Your task to perform on an android device: Search for "beats solo 3" on newegg.com, select the first entry, add it to the cart, then select checkout. Image 0: 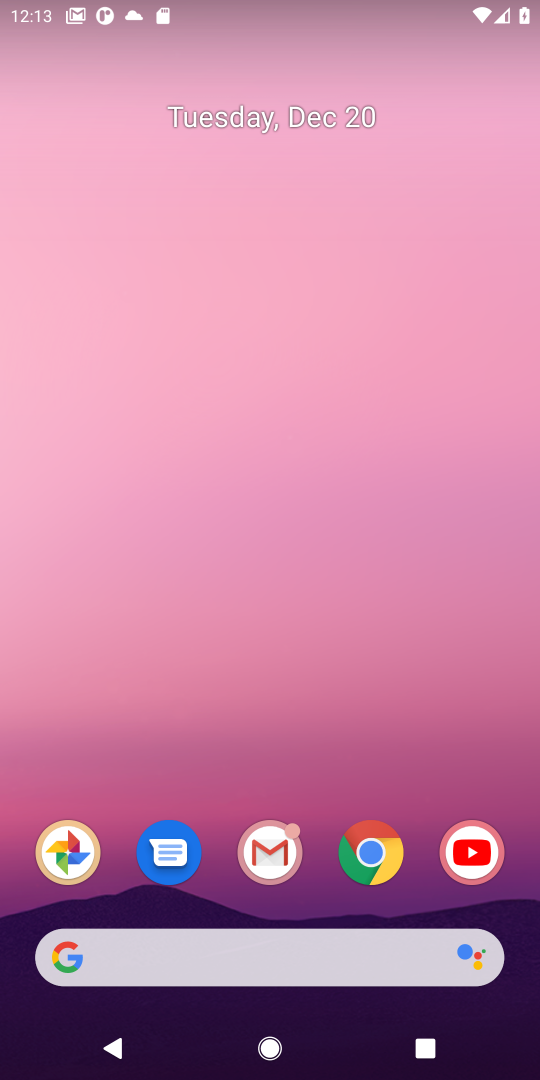
Step 0: click (374, 847)
Your task to perform on an android device: Search for "beats solo 3" on newegg.com, select the first entry, add it to the cart, then select checkout. Image 1: 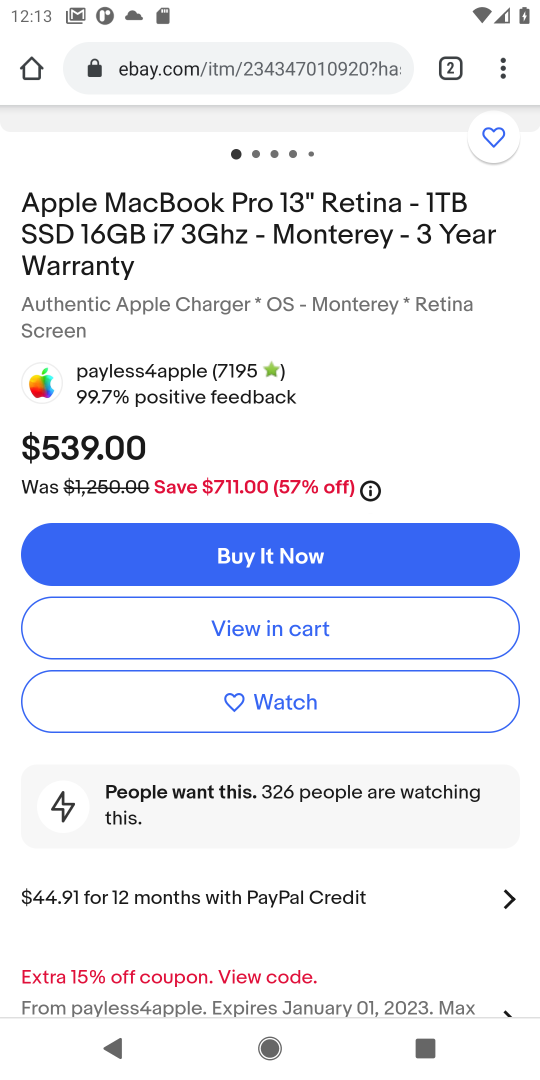
Step 1: click (195, 75)
Your task to perform on an android device: Search for "beats solo 3" on newegg.com, select the first entry, add it to the cart, then select checkout. Image 2: 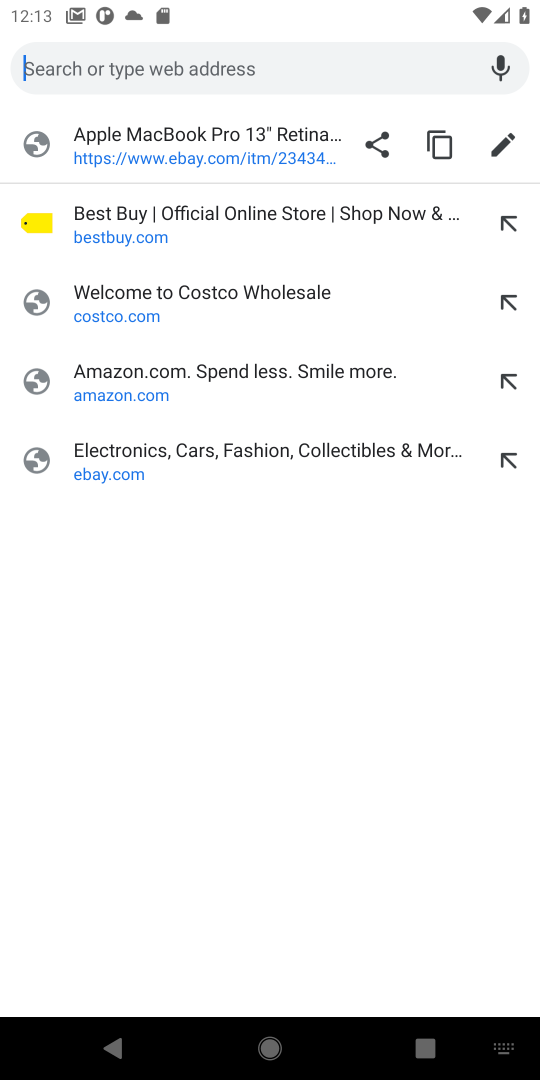
Step 2: type "newegg.com"
Your task to perform on an android device: Search for "beats solo 3" on newegg.com, select the first entry, add it to the cart, then select checkout. Image 3: 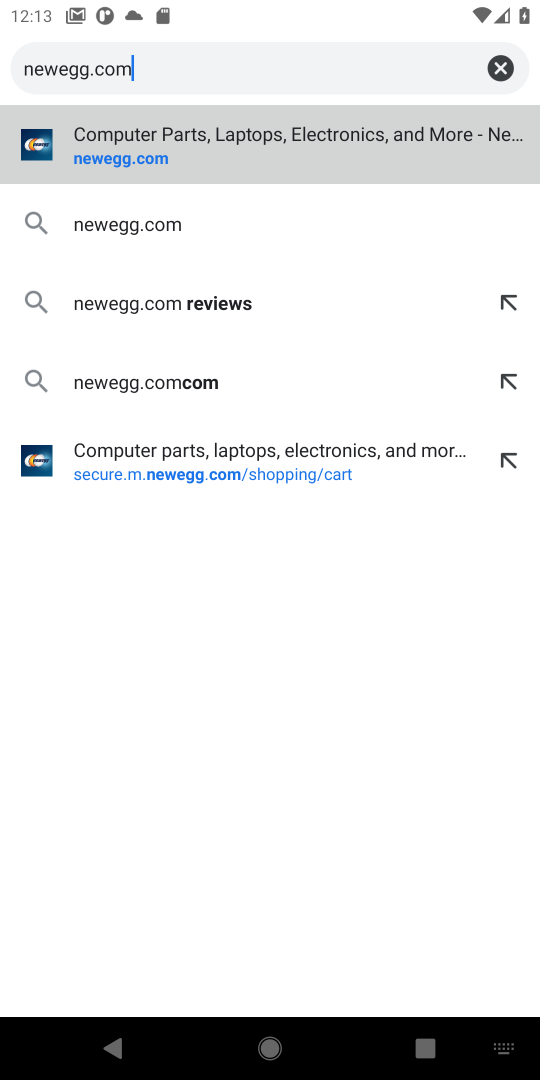
Step 3: click (122, 167)
Your task to perform on an android device: Search for "beats solo 3" on newegg.com, select the first entry, add it to the cart, then select checkout. Image 4: 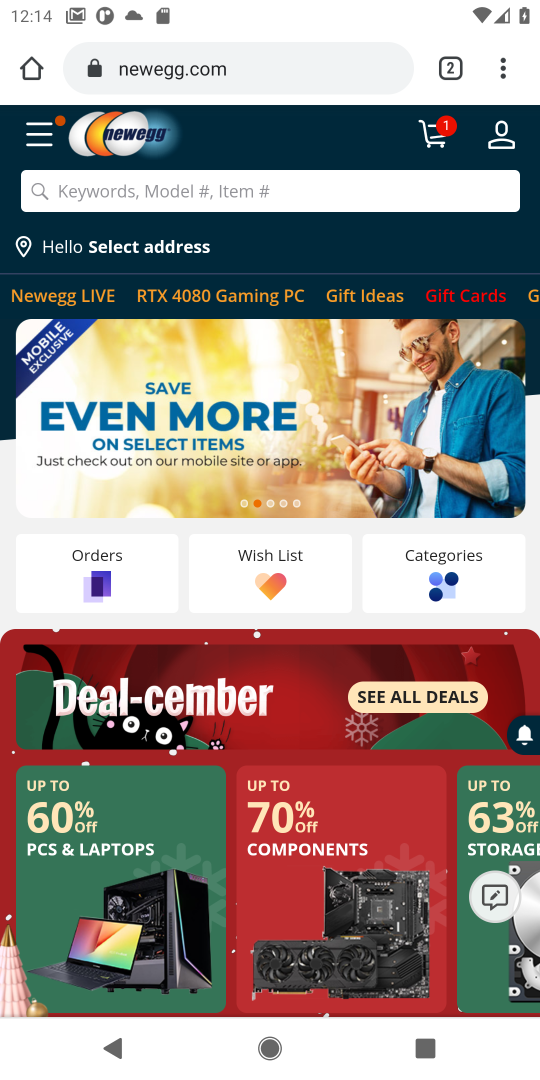
Step 4: click (81, 198)
Your task to perform on an android device: Search for "beats solo 3" on newegg.com, select the first entry, add it to the cart, then select checkout. Image 5: 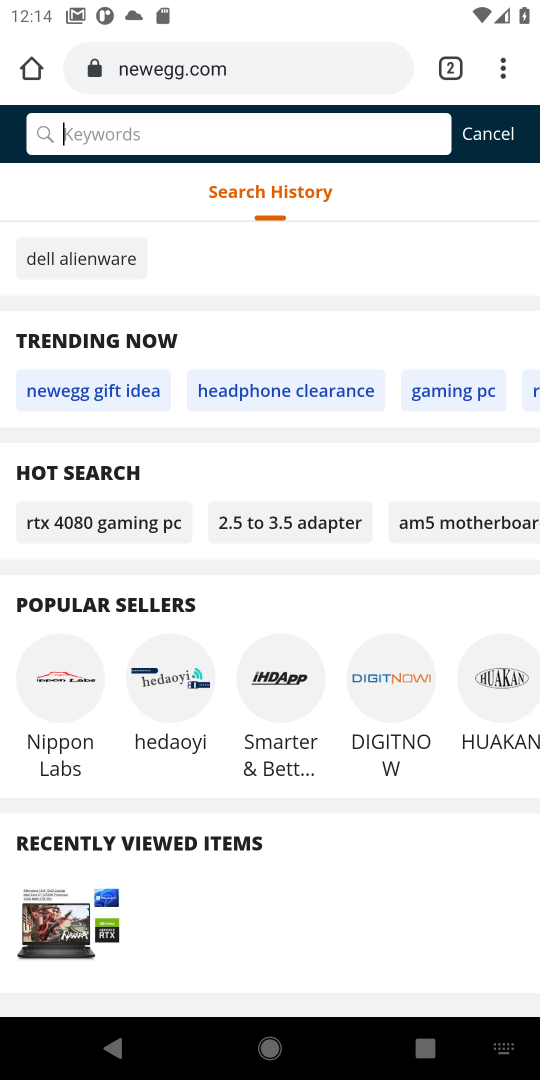
Step 5: type "beats solo 3"
Your task to perform on an android device: Search for "beats solo 3" on newegg.com, select the first entry, add it to the cart, then select checkout. Image 6: 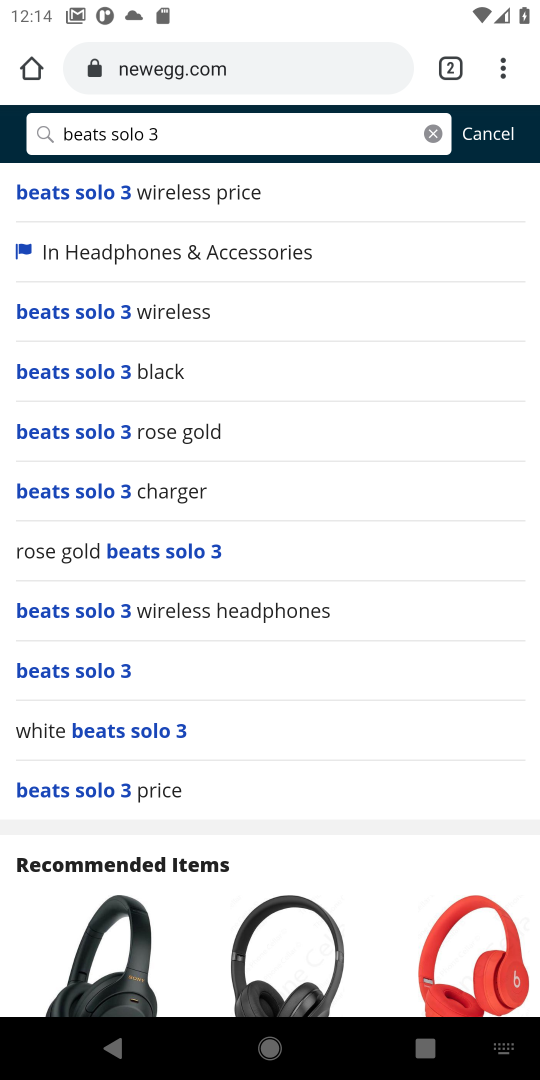
Step 6: click (68, 673)
Your task to perform on an android device: Search for "beats solo 3" on newegg.com, select the first entry, add it to the cart, then select checkout. Image 7: 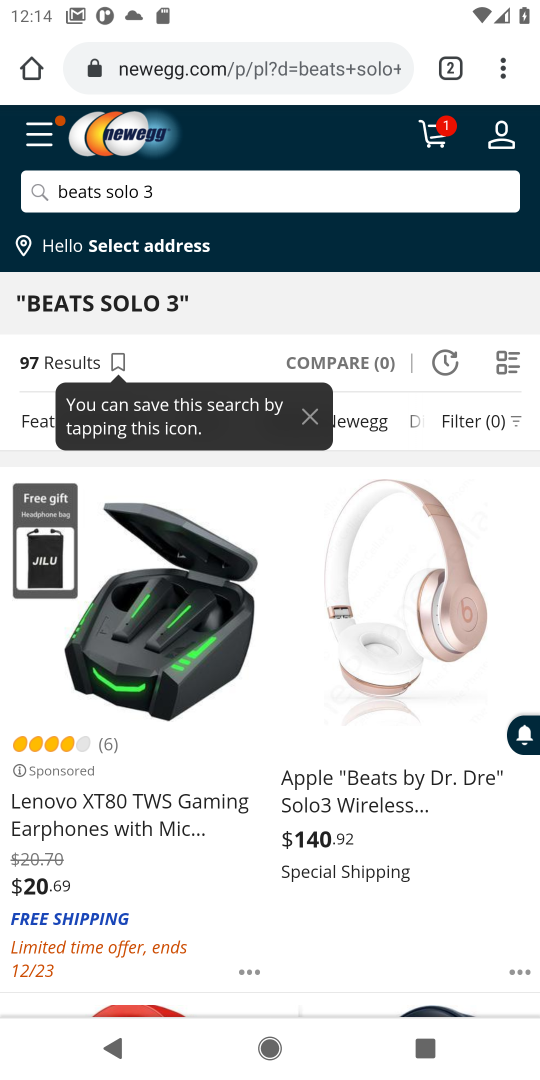
Step 7: task complete